Your task to perform on an android device: open app "Expedia: Hotels, Flights & Car" (install if not already installed), go to login, and select forgot password Image 0: 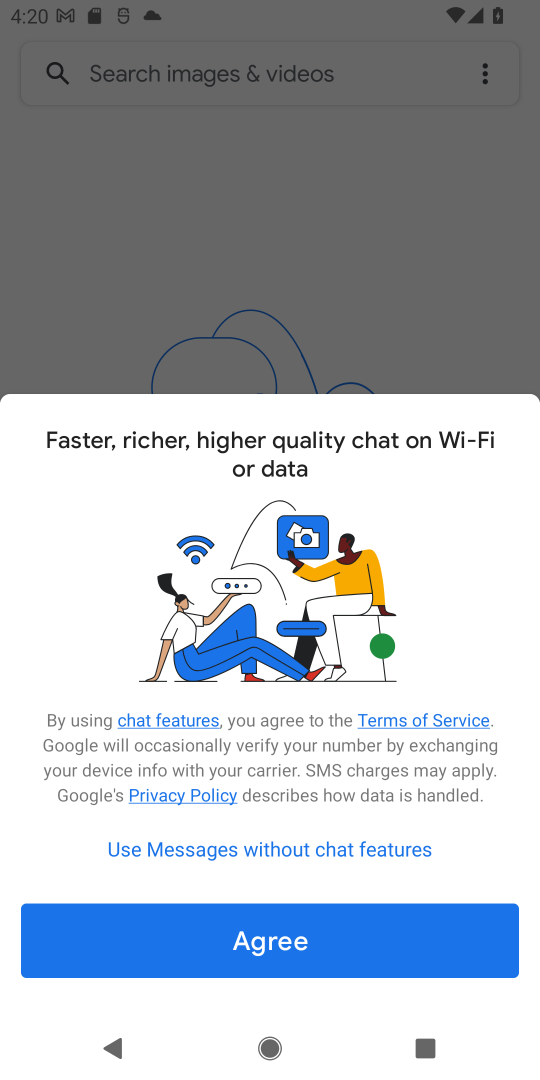
Step 0: press home button
Your task to perform on an android device: open app "Expedia: Hotels, Flights & Car" (install if not already installed), go to login, and select forgot password Image 1: 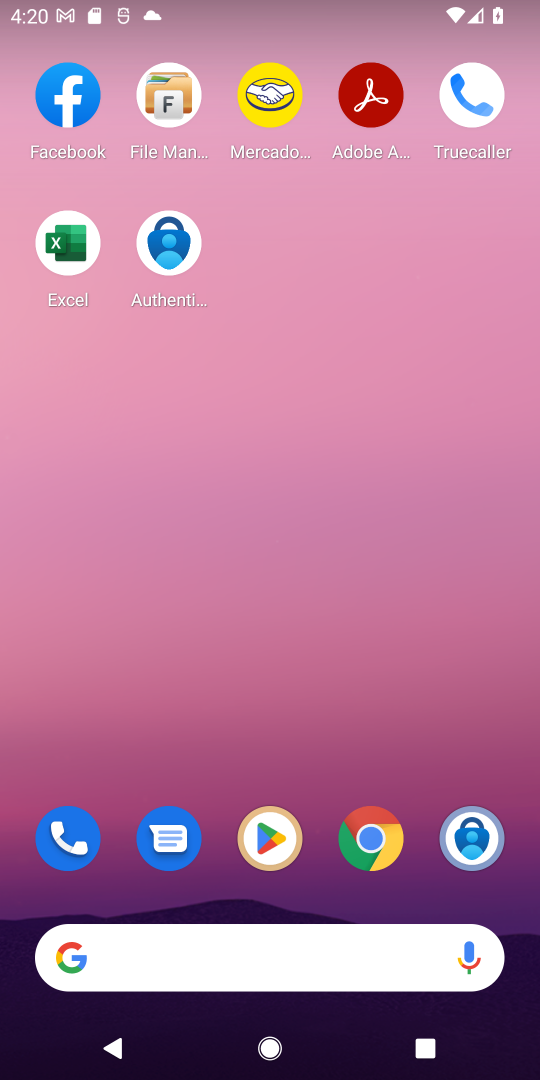
Step 1: click (268, 835)
Your task to perform on an android device: open app "Expedia: Hotels, Flights & Car" (install if not already installed), go to login, and select forgot password Image 2: 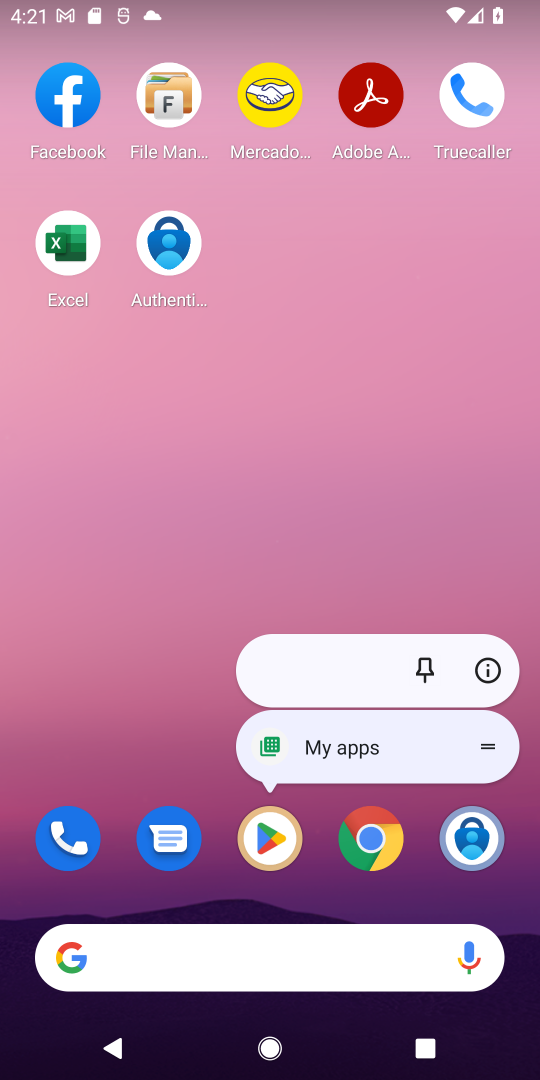
Step 2: click (265, 833)
Your task to perform on an android device: open app "Expedia: Hotels, Flights & Car" (install if not already installed), go to login, and select forgot password Image 3: 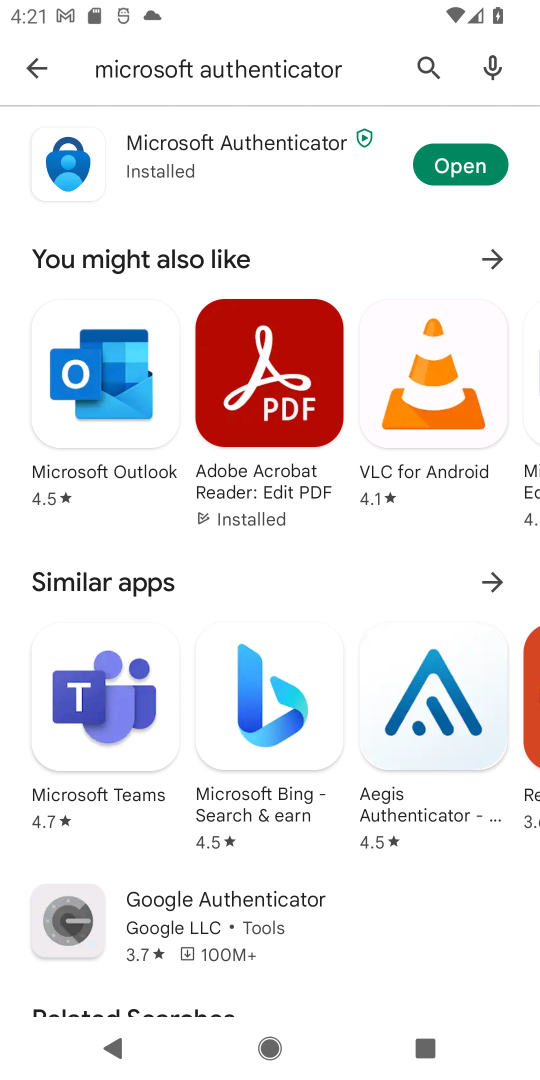
Step 3: click (426, 67)
Your task to perform on an android device: open app "Expedia: Hotels, Flights & Car" (install if not already installed), go to login, and select forgot password Image 4: 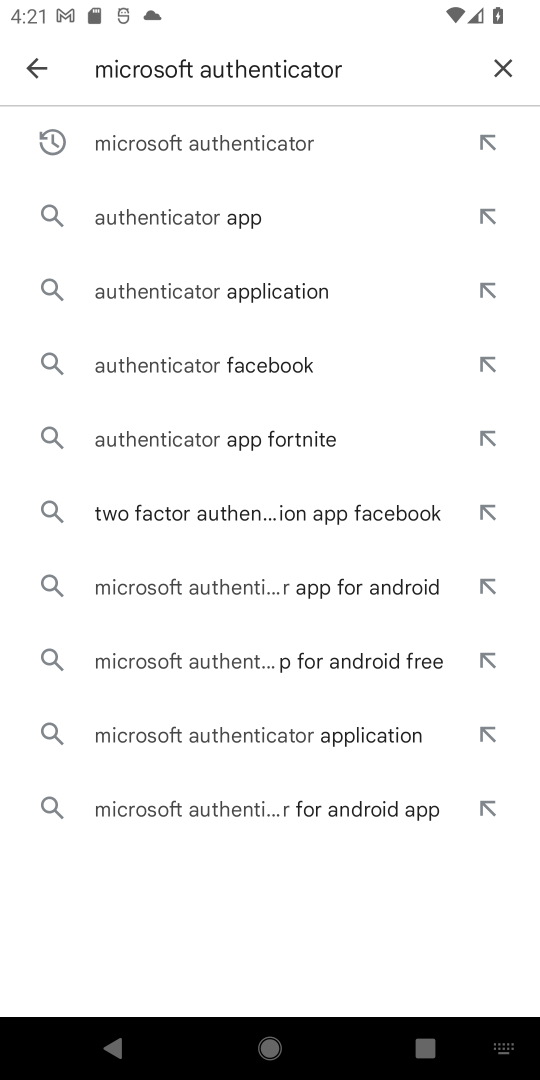
Step 4: click (500, 73)
Your task to perform on an android device: open app "Expedia: Hotels, Flights & Car" (install if not already installed), go to login, and select forgot password Image 5: 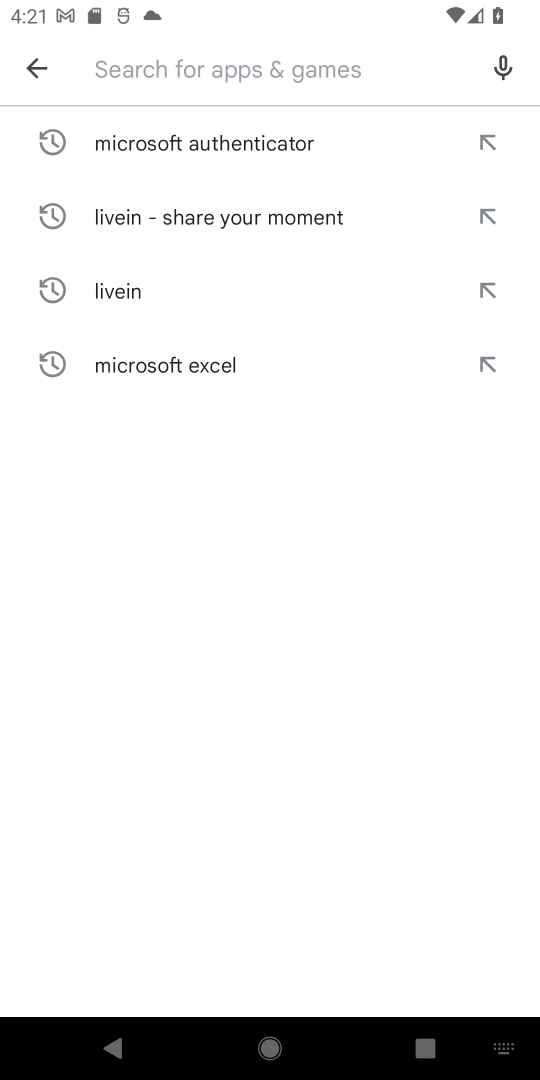
Step 5: type "Expedia: Hotels, Flights & Car"
Your task to perform on an android device: open app "Expedia: Hotels, Flights & Car" (install if not already installed), go to login, and select forgot password Image 6: 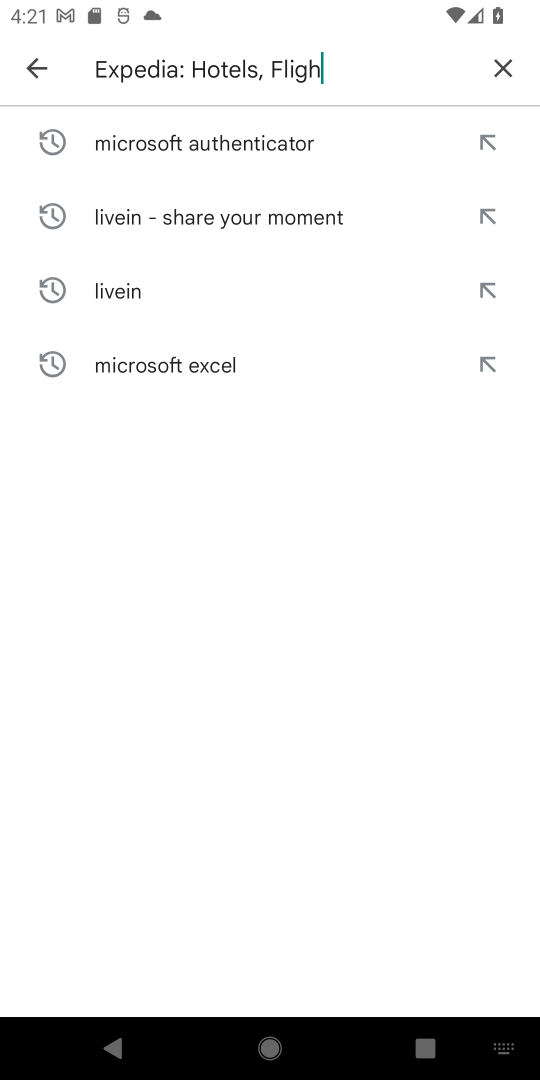
Step 6: type ""
Your task to perform on an android device: open app "Expedia: Hotels, Flights & Car" (install if not already installed), go to login, and select forgot password Image 7: 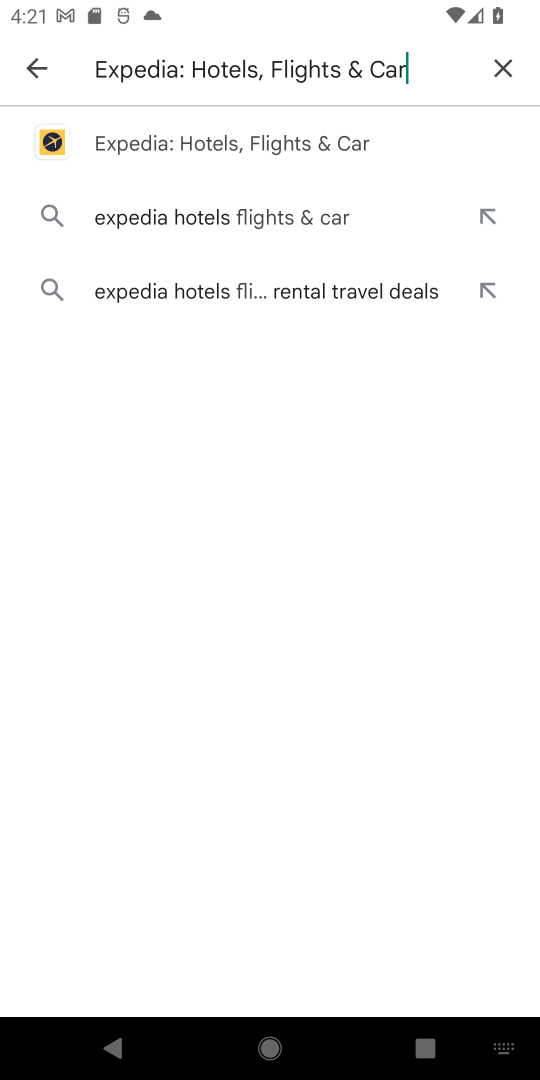
Step 7: click (236, 147)
Your task to perform on an android device: open app "Expedia: Hotels, Flights & Car" (install if not already installed), go to login, and select forgot password Image 8: 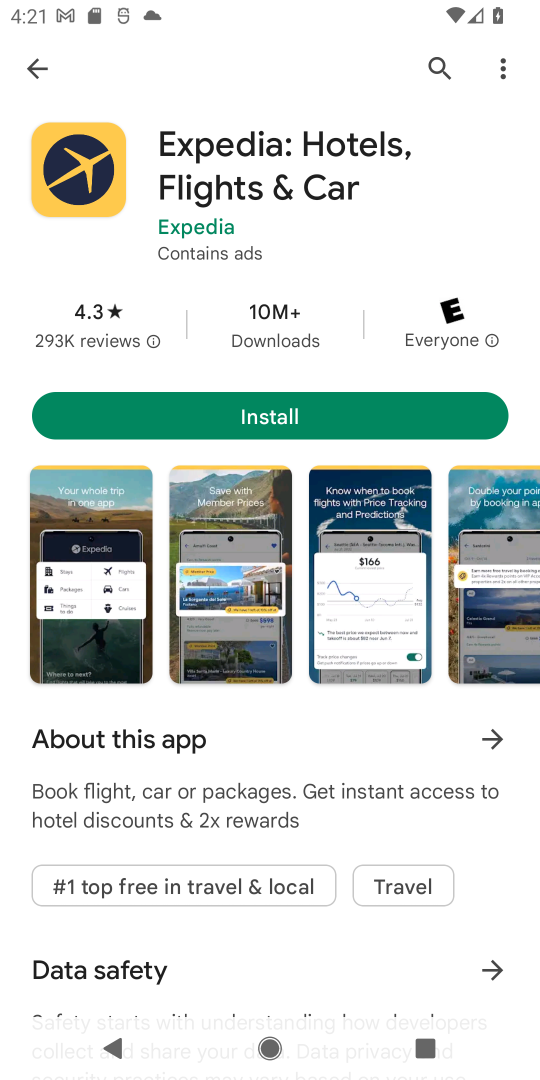
Step 8: click (265, 416)
Your task to perform on an android device: open app "Expedia: Hotels, Flights & Car" (install if not already installed), go to login, and select forgot password Image 9: 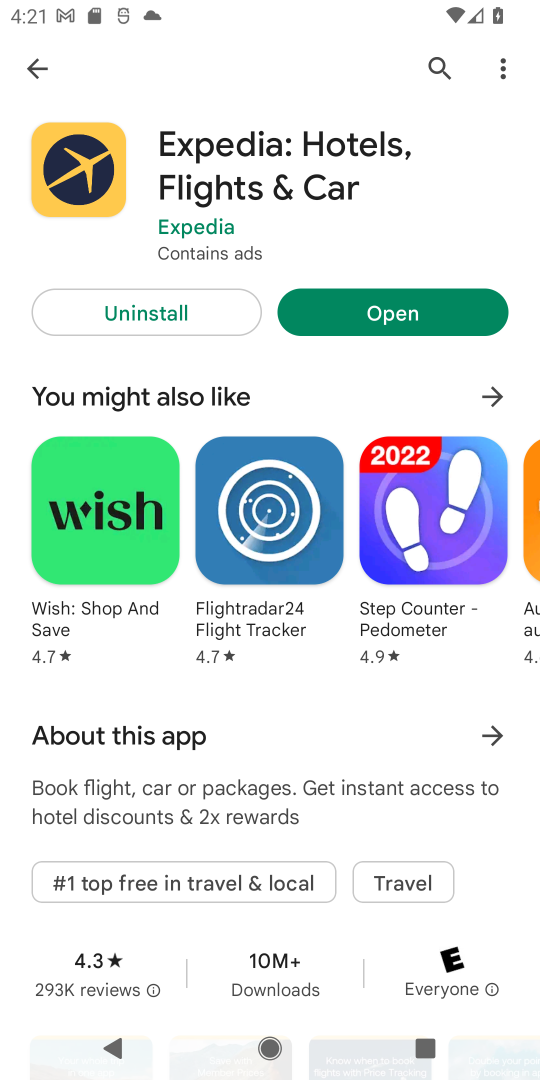
Step 9: click (397, 309)
Your task to perform on an android device: open app "Expedia: Hotels, Flights & Car" (install if not already installed), go to login, and select forgot password Image 10: 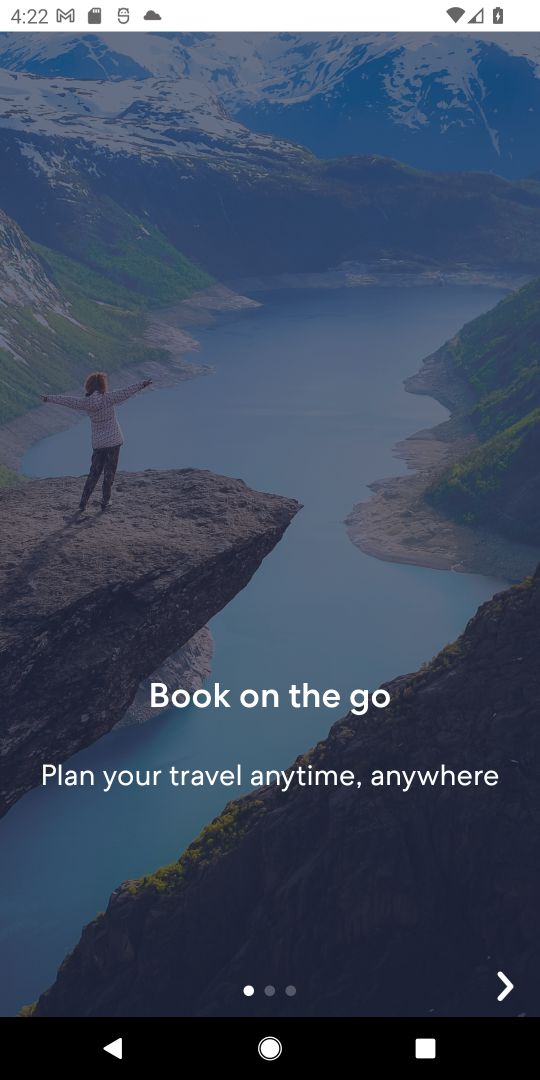
Step 10: click (503, 980)
Your task to perform on an android device: open app "Expedia: Hotels, Flights & Car" (install if not already installed), go to login, and select forgot password Image 11: 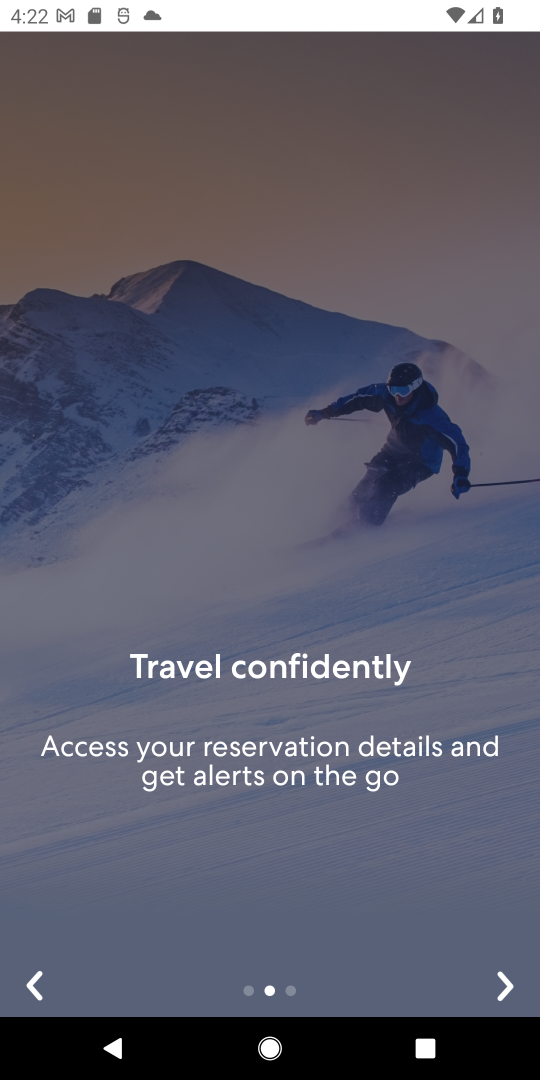
Step 11: click (503, 980)
Your task to perform on an android device: open app "Expedia: Hotels, Flights & Car" (install if not already installed), go to login, and select forgot password Image 12: 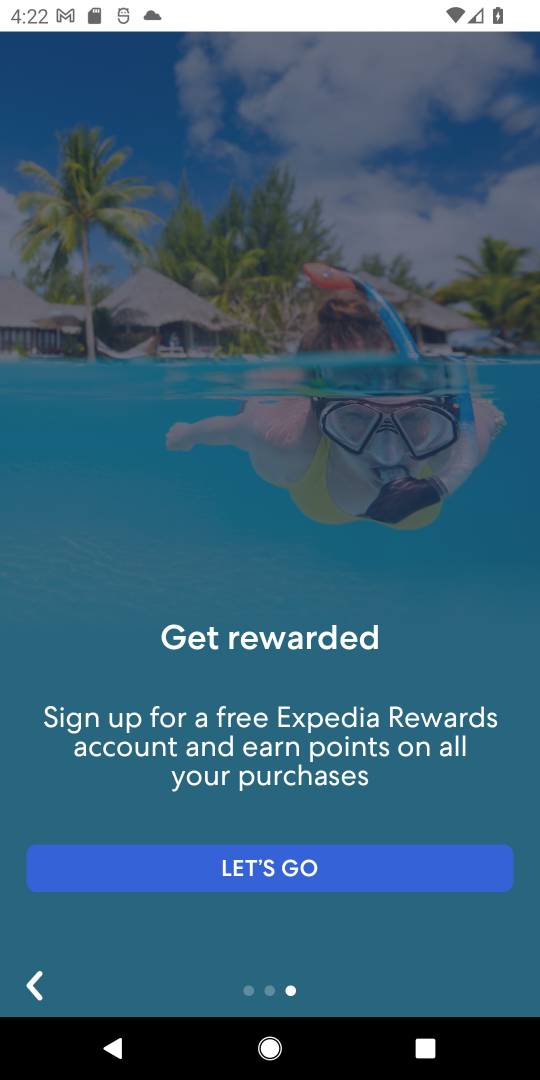
Step 12: click (286, 859)
Your task to perform on an android device: open app "Expedia: Hotels, Flights & Car" (install if not already installed), go to login, and select forgot password Image 13: 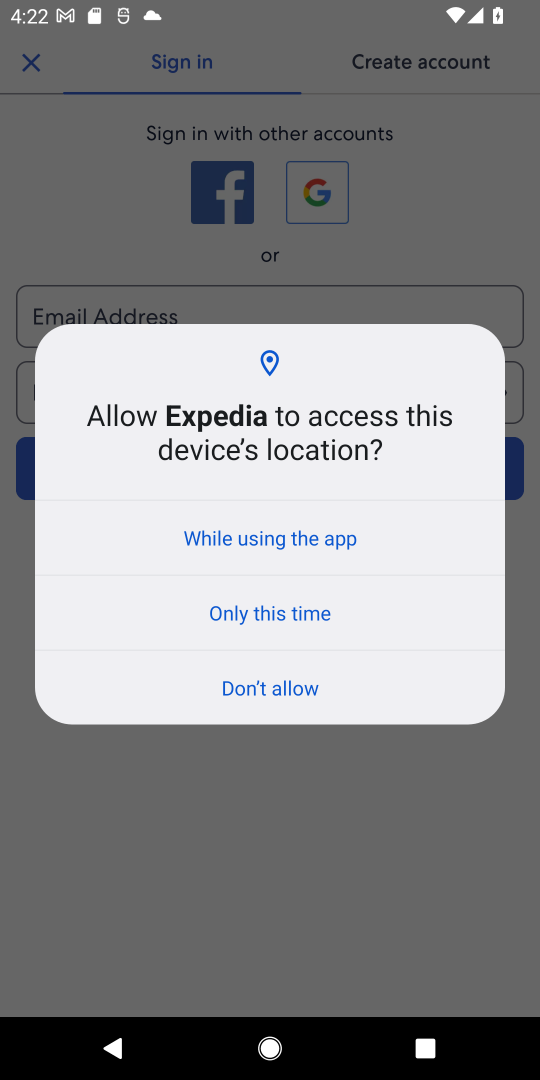
Step 13: click (299, 535)
Your task to perform on an android device: open app "Expedia: Hotels, Flights & Car" (install if not already installed), go to login, and select forgot password Image 14: 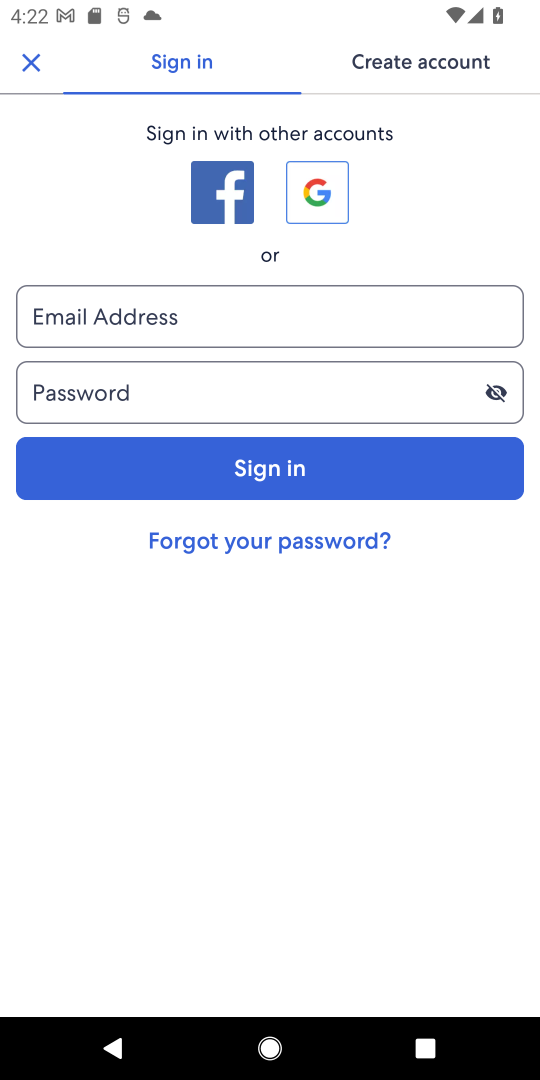
Step 14: click (304, 541)
Your task to perform on an android device: open app "Expedia: Hotels, Flights & Car" (install if not already installed), go to login, and select forgot password Image 15: 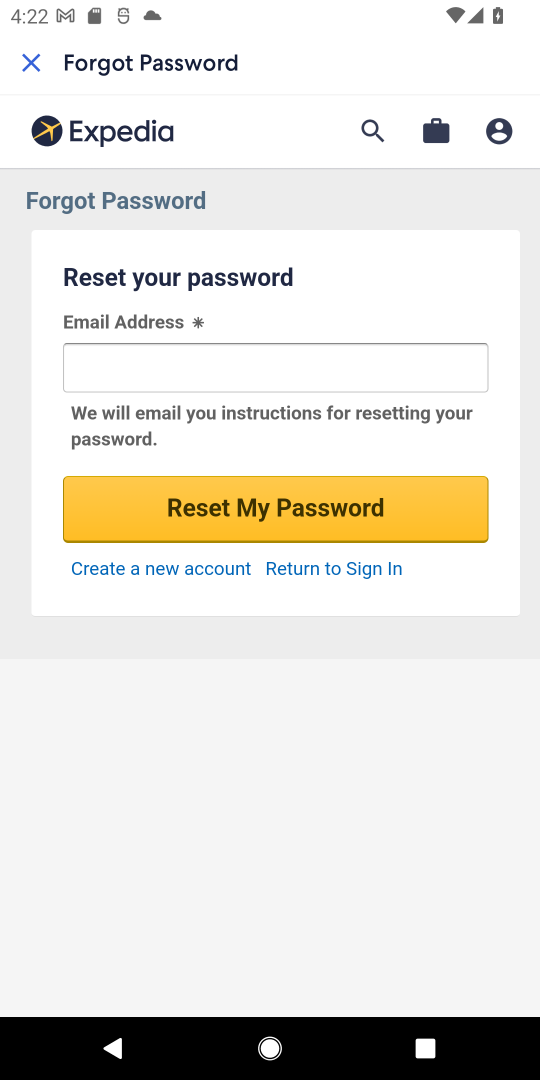
Step 15: task complete